Your task to perform on an android device: Toggle the flashlight Image 0: 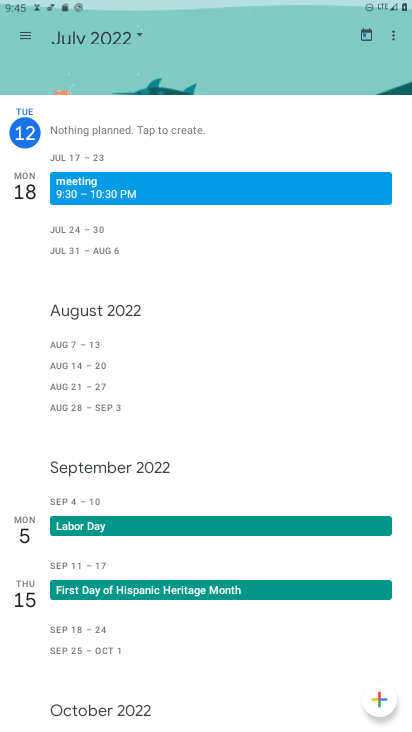
Step 0: press home button
Your task to perform on an android device: Toggle the flashlight Image 1: 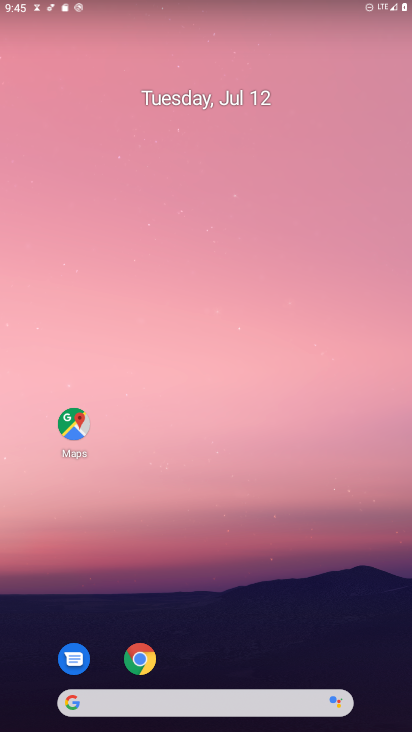
Step 1: drag from (189, 701) to (202, 165)
Your task to perform on an android device: Toggle the flashlight Image 2: 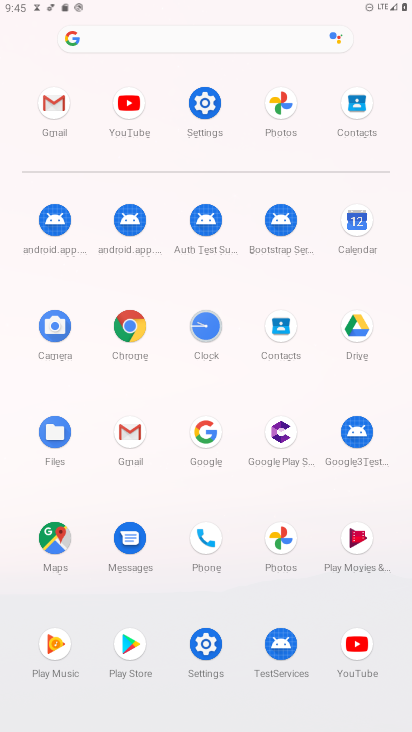
Step 2: click (204, 103)
Your task to perform on an android device: Toggle the flashlight Image 3: 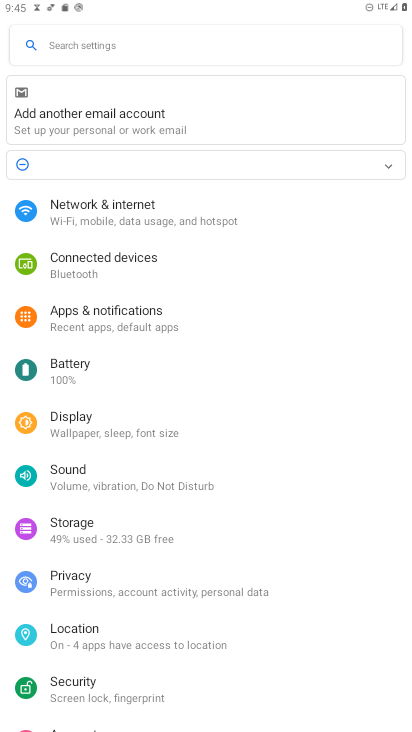
Step 3: click (66, 427)
Your task to perform on an android device: Toggle the flashlight Image 4: 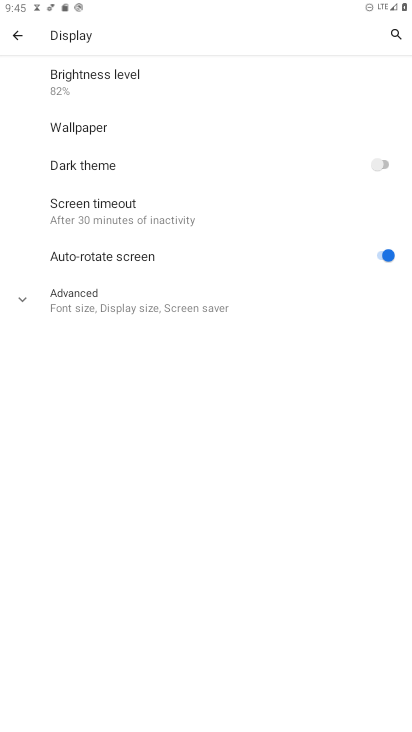
Step 4: click (111, 224)
Your task to perform on an android device: Toggle the flashlight Image 5: 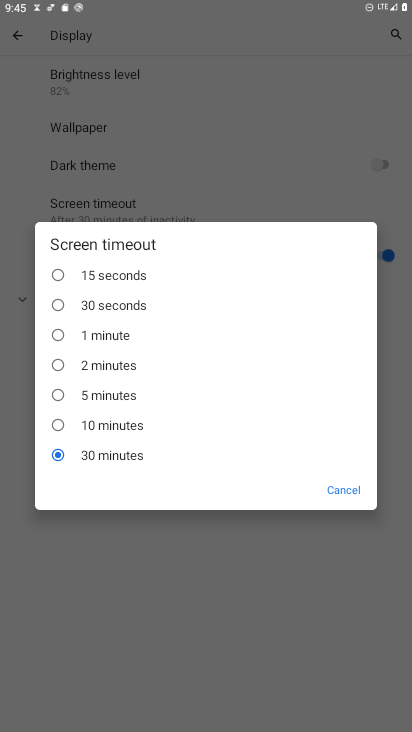
Step 5: click (343, 488)
Your task to perform on an android device: Toggle the flashlight Image 6: 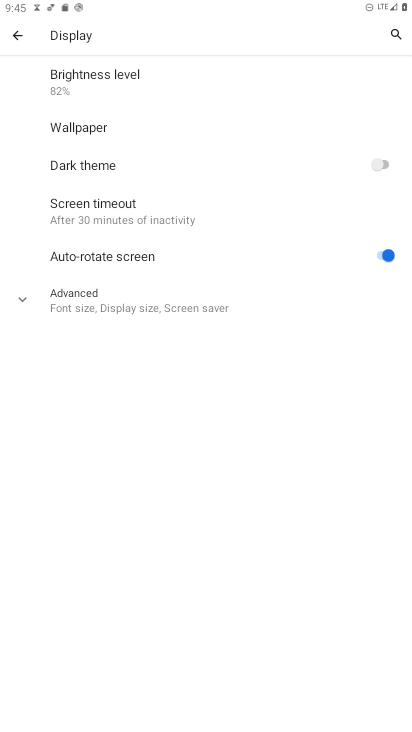
Step 6: press back button
Your task to perform on an android device: Toggle the flashlight Image 7: 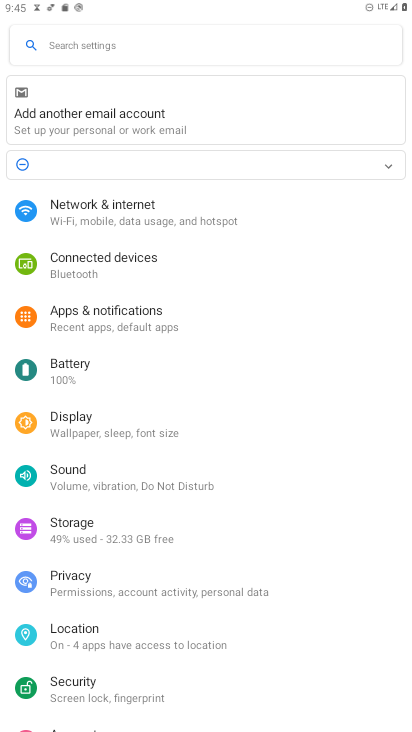
Step 7: click (51, 381)
Your task to perform on an android device: Toggle the flashlight Image 8: 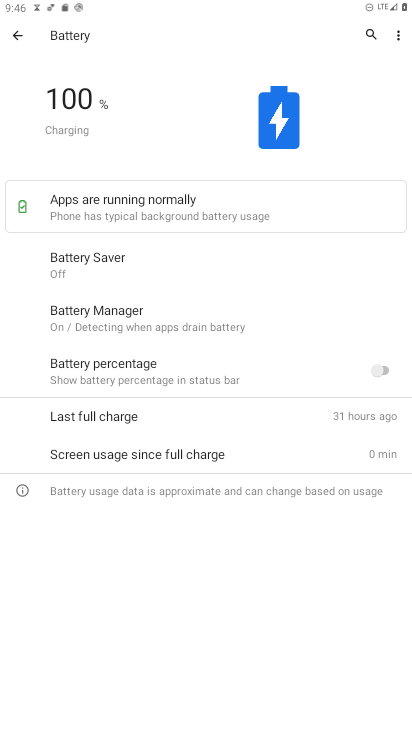
Step 8: press back button
Your task to perform on an android device: Toggle the flashlight Image 9: 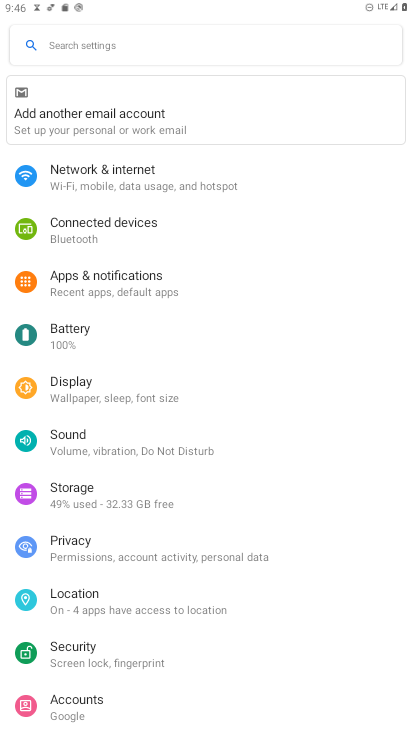
Step 9: drag from (130, 590) to (200, 470)
Your task to perform on an android device: Toggle the flashlight Image 10: 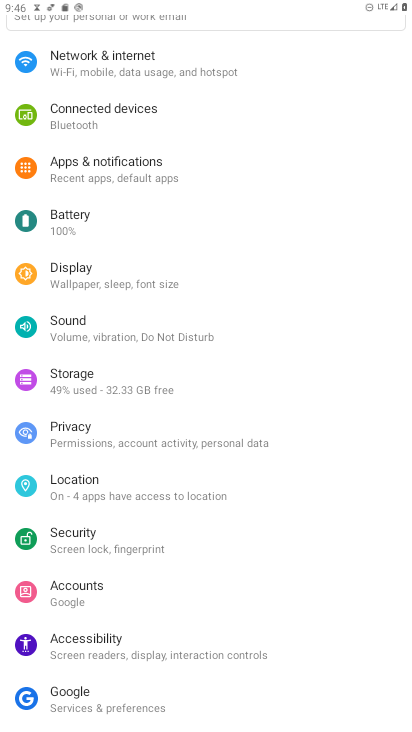
Step 10: drag from (130, 527) to (210, 424)
Your task to perform on an android device: Toggle the flashlight Image 11: 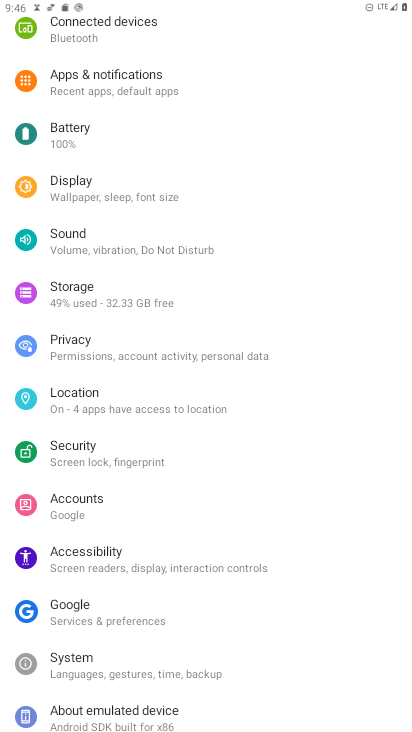
Step 11: drag from (109, 518) to (162, 429)
Your task to perform on an android device: Toggle the flashlight Image 12: 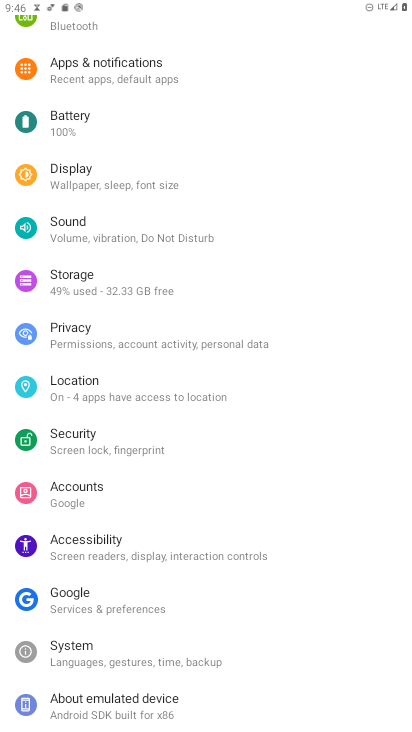
Step 12: drag from (89, 569) to (135, 471)
Your task to perform on an android device: Toggle the flashlight Image 13: 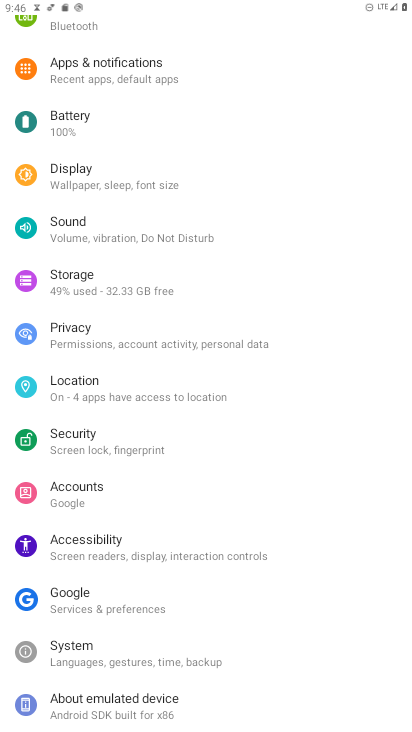
Step 13: drag from (108, 636) to (162, 531)
Your task to perform on an android device: Toggle the flashlight Image 14: 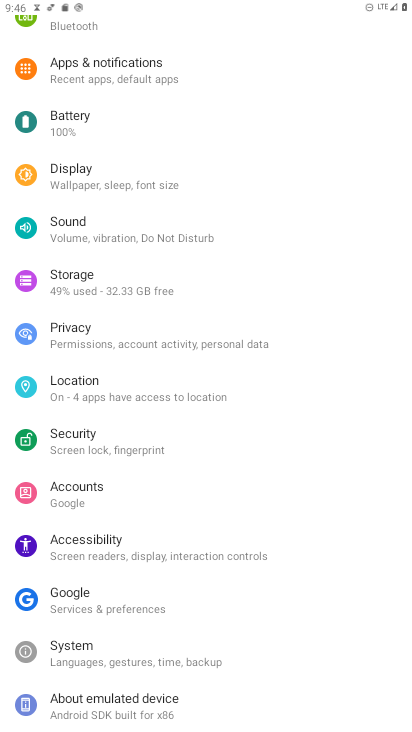
Step 14: click (134, 552)
Your task to perform on an android device: Toggle the flashlight Image 15: 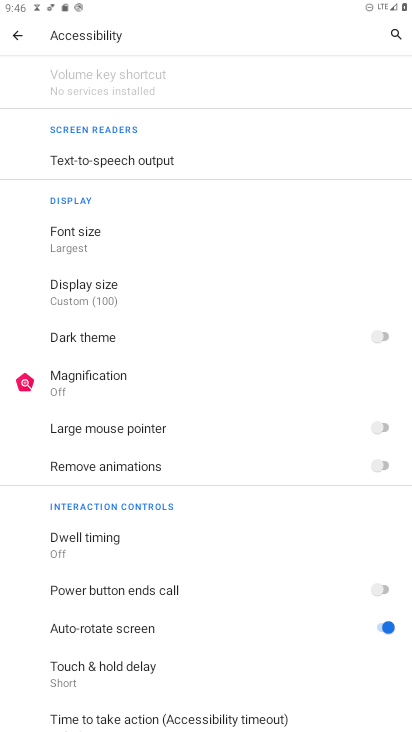
Step 15: task complete